Your task to perform on an android device: open device folders in google photos Image 0: 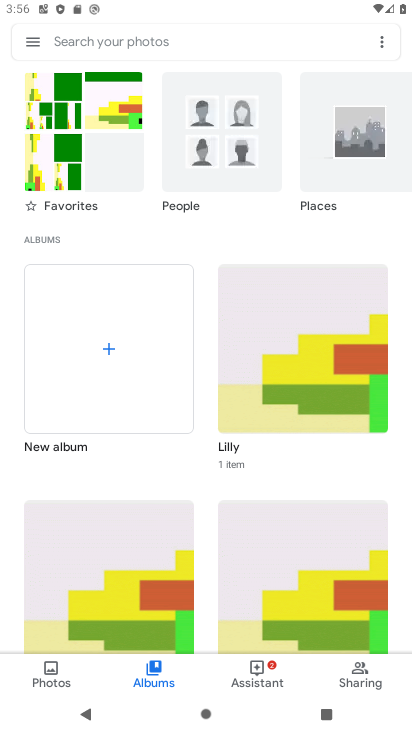
Step 0: press home button
Your task to perform on an android device: open device folders in google photos Image 1: 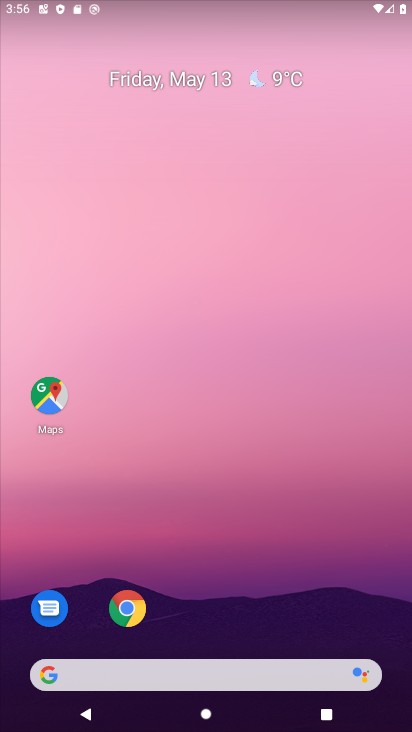
Step 1: click (218, 290)
Your task to perform on an android device: open device folders in google photos Image 2: 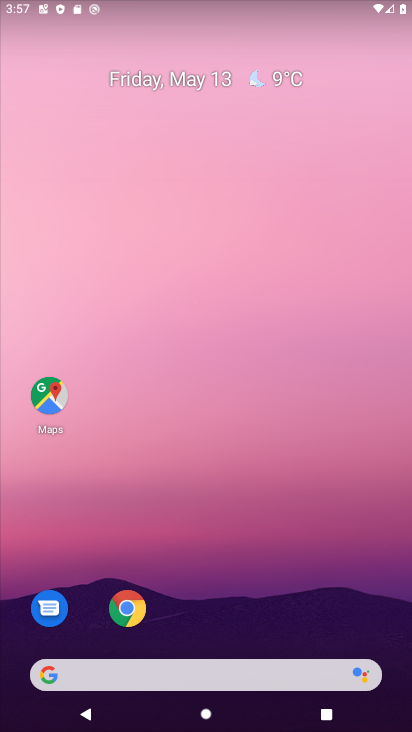
Step 2: drag from (255, 653) to (226, 254)
Your task to perform on an android device: open device folders in google photos Image 3: 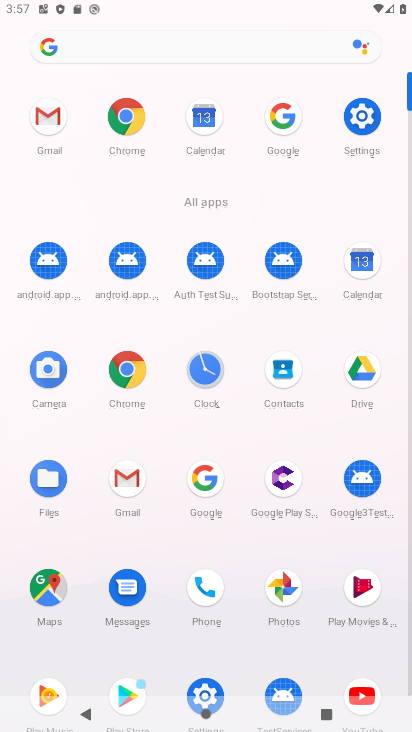
Step 3: click (289, 585)
Your task to perform on an android device: open device folders in google photos Image 4: 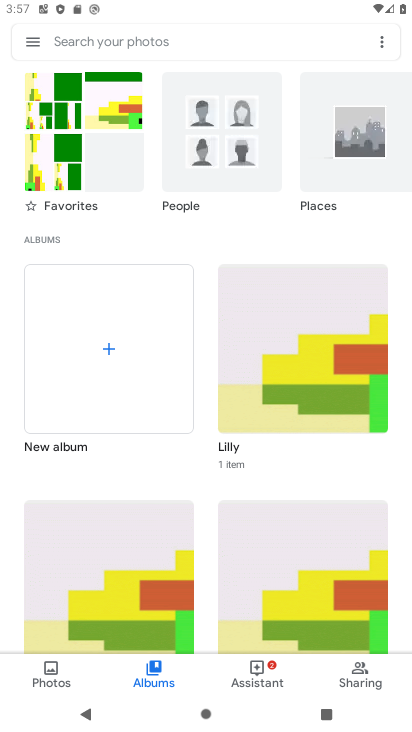
Step 4: click (21, 40)
Your task to perform on an android device: open device folders in google photos Image 5: 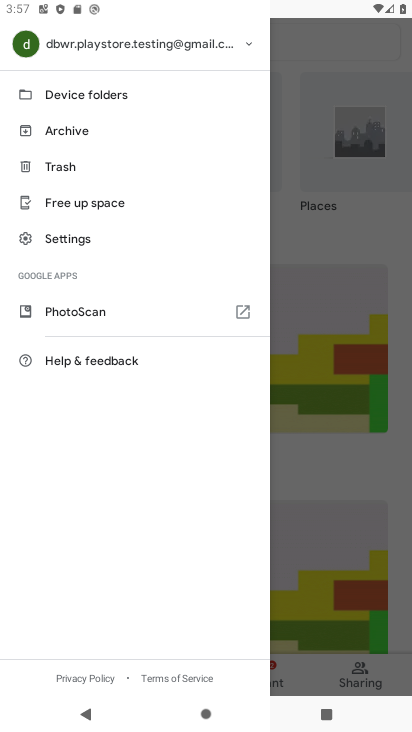
Step 5: click (83, 107)
Your task to perform on an android device: open device folders in google photos Image 6: 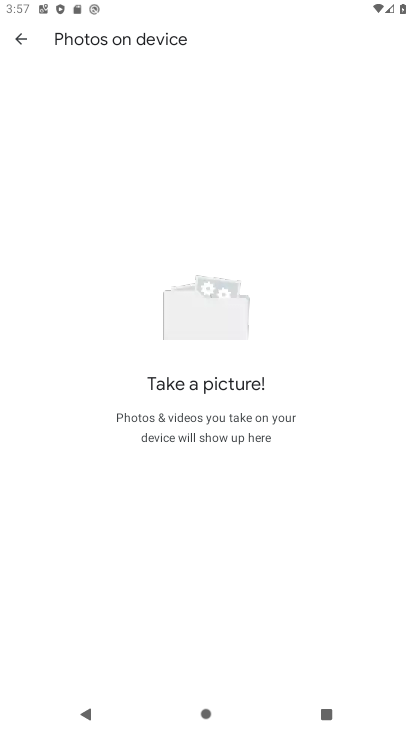
Step 6: task complete